Your task to perform on an android device: toggle notification dots Image 0: 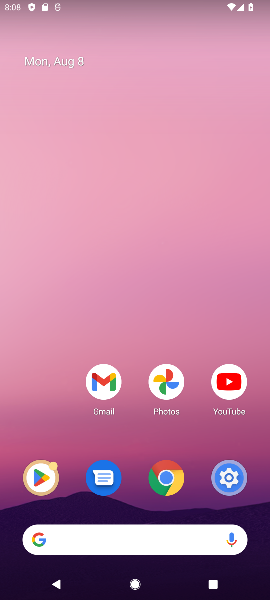
Step 0: click (227, 475)
Your task to perform on an android device: toggle notification dots Image 1: 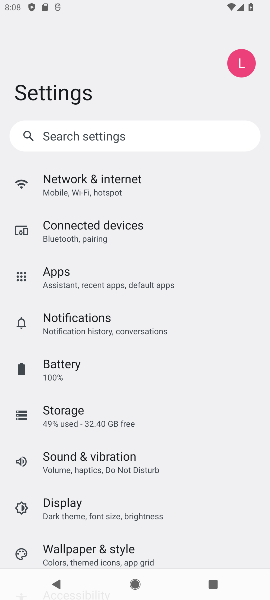
Step 1: click (76, 318)
Your task to perform on an android device: toggle notification dots Image 2: 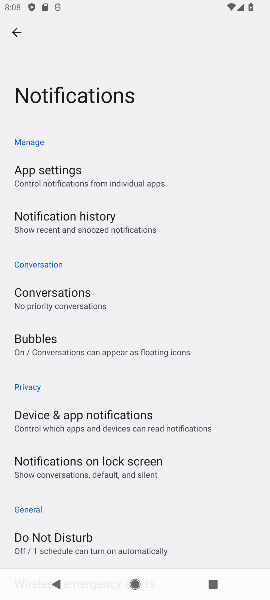
Step 2: drag from (85, 511) to (218, 203)
Your task to perform on an android device: toggle notification dots Image 3: 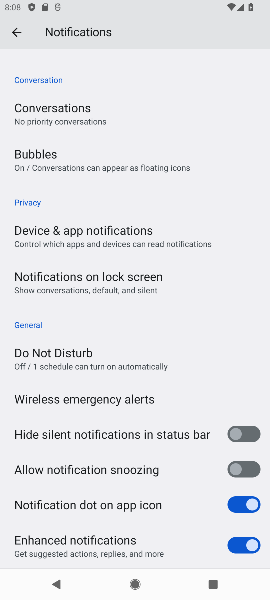
Step 3: click (234, 504)
Your task to perform on an android device: toggle notification dots Image 4: 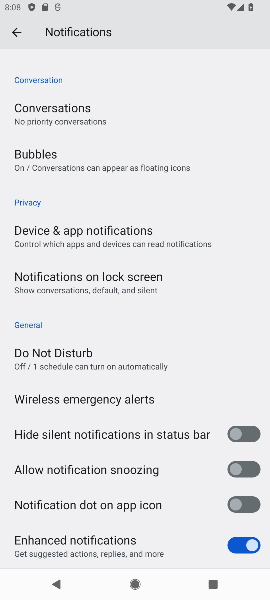
Step 4: task complete